Your task to perform on an android device: Is it going to rain tomorrow? Image 0: 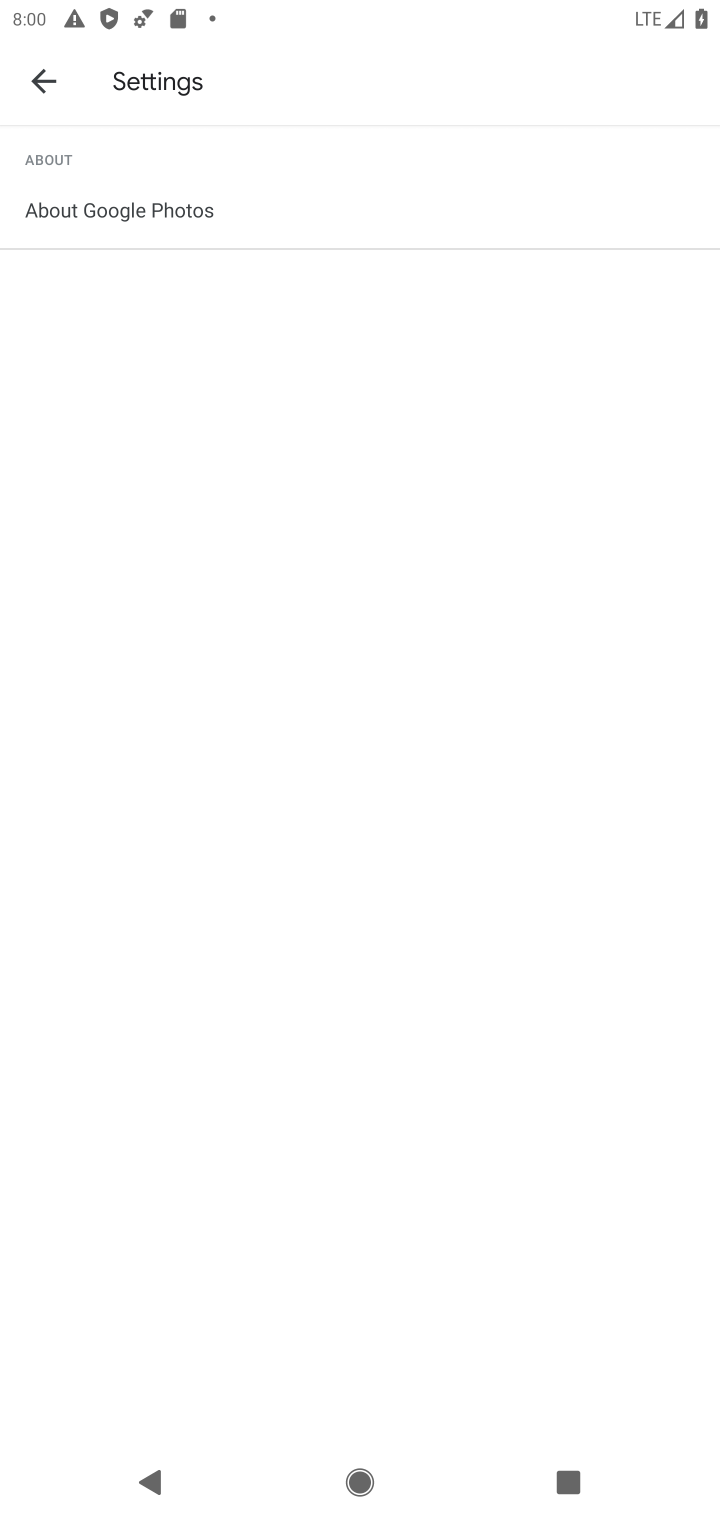
Step 0: press home button
Your task to perform on an android device: Is it going to rain tomorrow? Image 1: 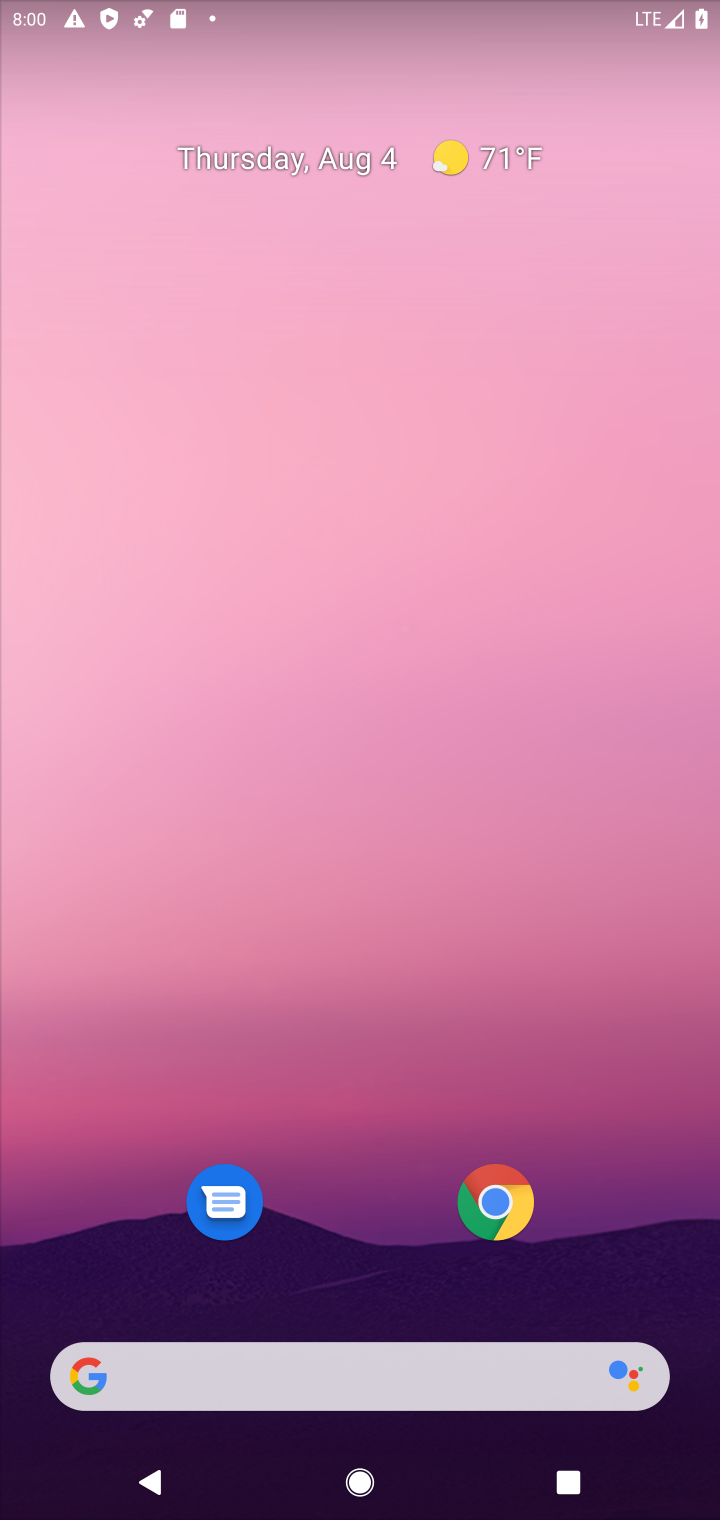
Step 1: drag from (328, 1069) to (328, 324)
Your task to perform on an android device: Is it going to rain tomorrow? Image 2: 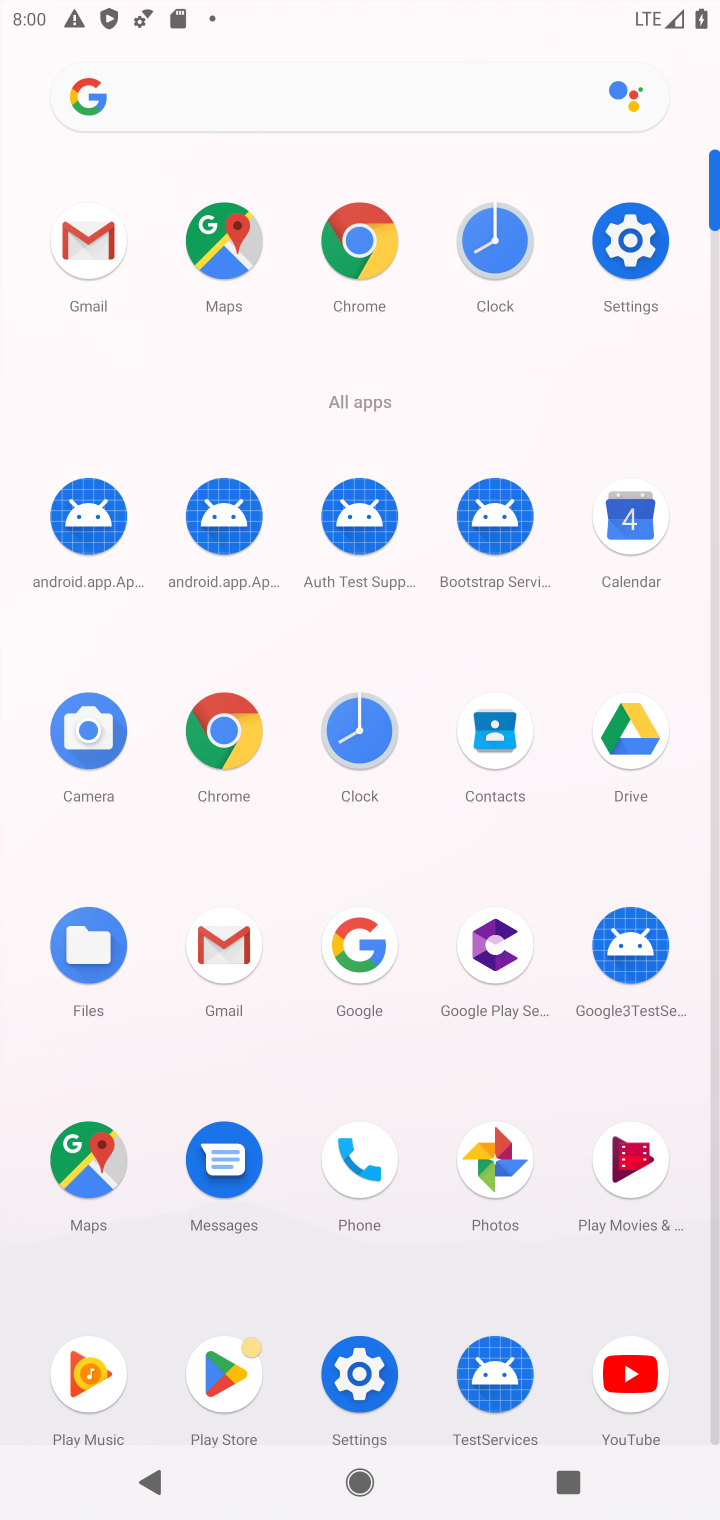
Step 2: click (365, 951)
Your task to perform on an android device: Is it going to rain tomorrow? Image 3: 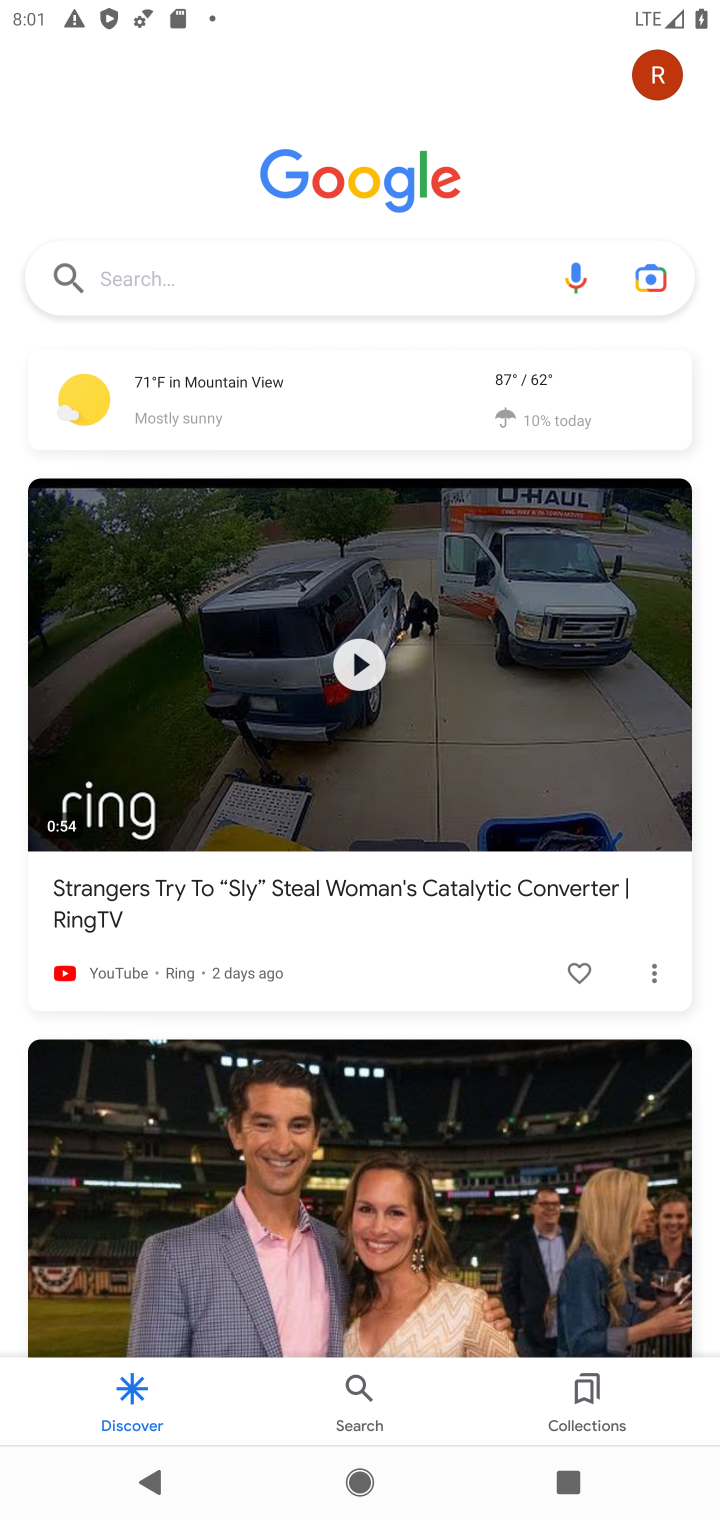
Step 3: click (295, 397)
Your task to perform on an android device: Is it going to rain tomorrow? Image 4: 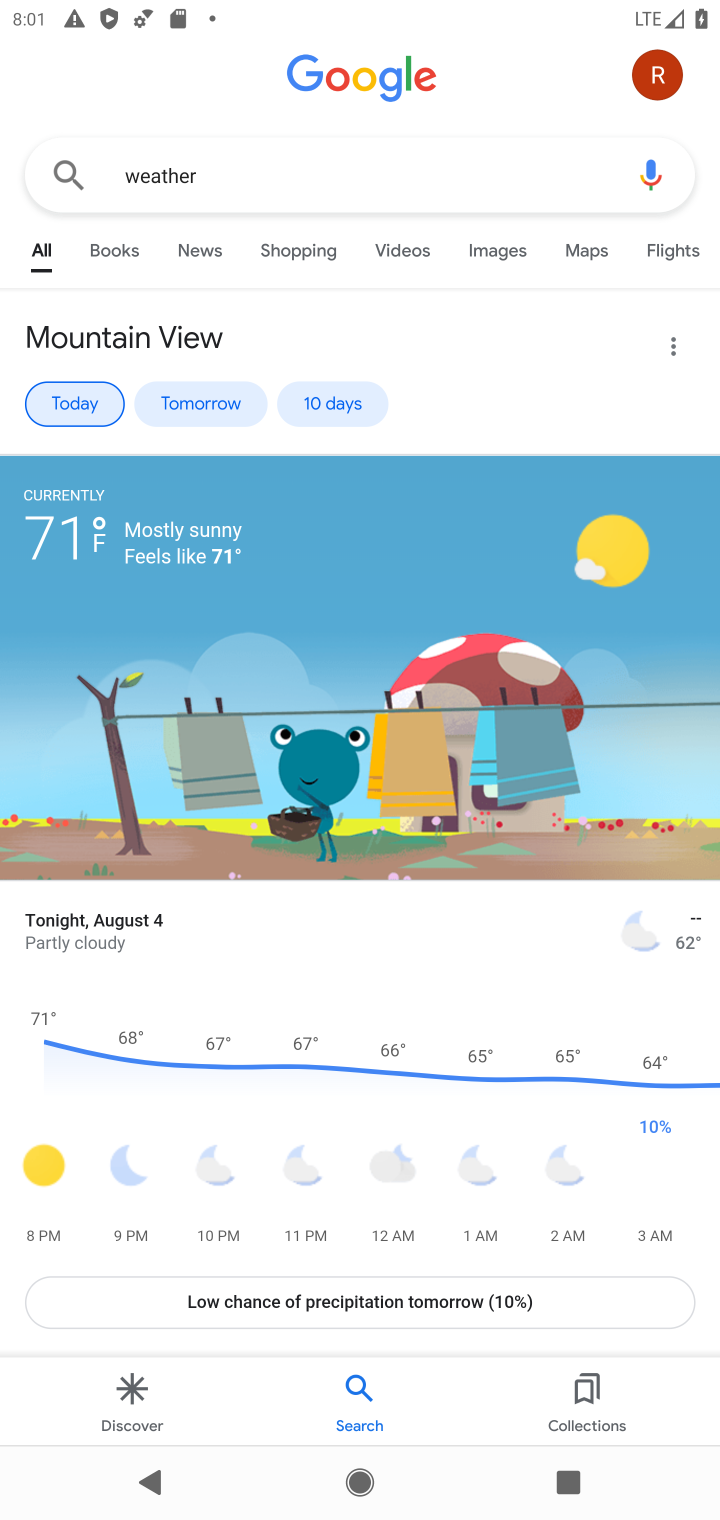
Step 4: click (230, 411)
Your task to perform on an android device: Is it going to rain tomorrow? Image 5: 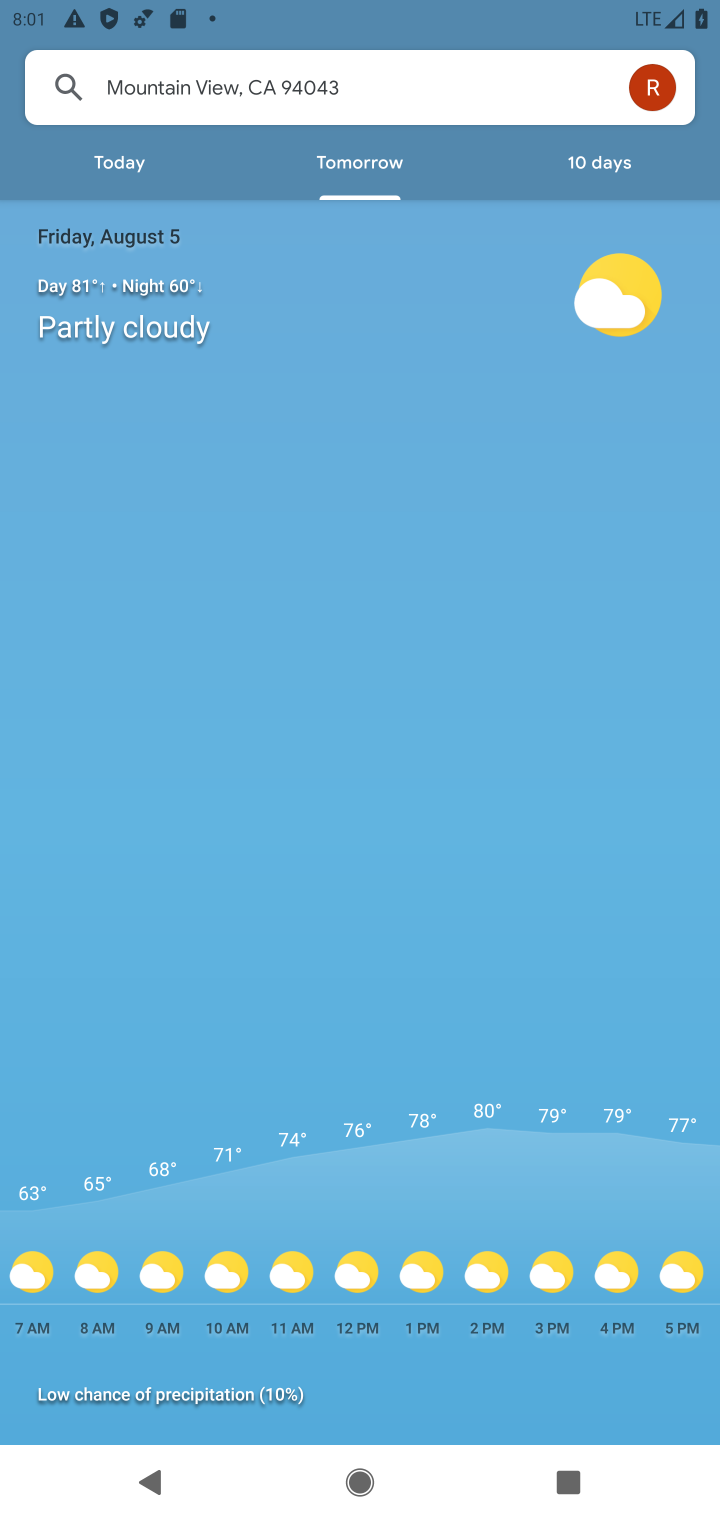
Step 5: task complete